Your task to perform on an android device: Set the phone to "Do not disturb". Image 0: 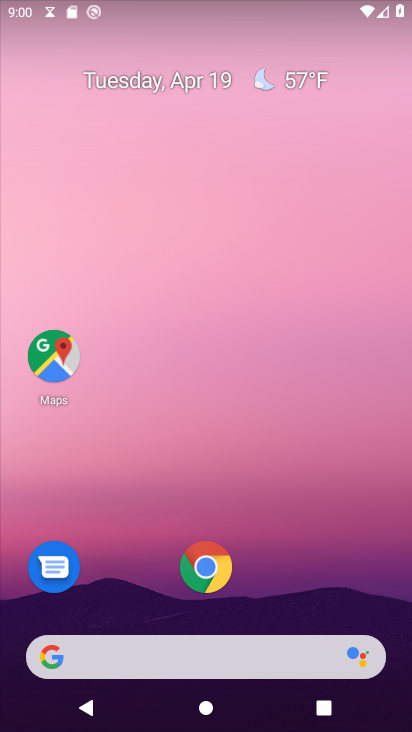
Step 0: drag from (335, 542) to (387, 105)
Your task to perform on an android device: Set the phone to "Do not disturb". Image 1: 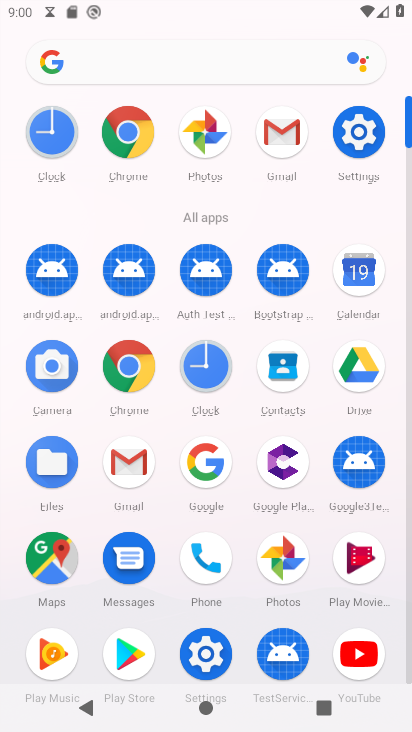
Step 1: click (364, 120)
Your task to perform on an android device: Set the phone to "Do not disturb". Image 2: 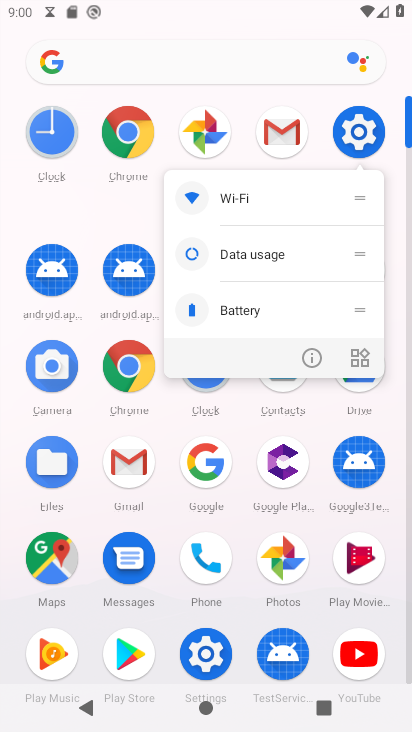
Step 2: click (361, 131)
Your task to perform on an android device: Set the phone to "Do not disturb". Image 3: 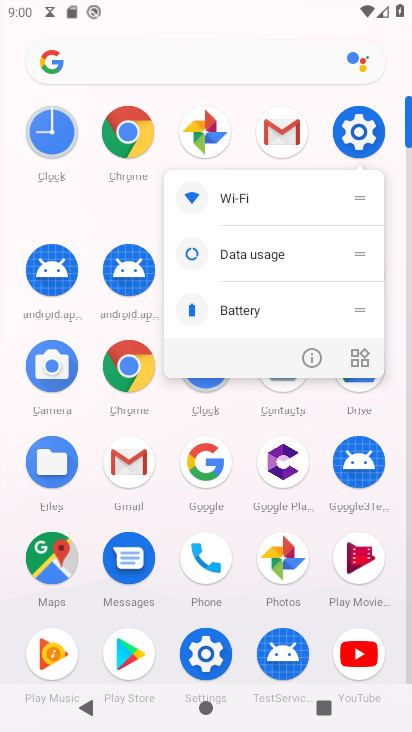
Step 3: click (361, 130)
Your task to perform on an android device: Set the phone to "Do not disturb". Image 4: 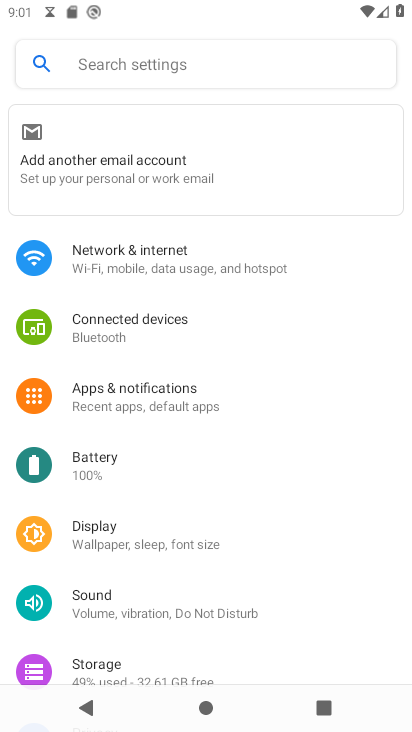
Step 4: drag from (74, 614) to (81, 323)
Your task to perform on an android device: Set the phone to "Do not disturb". Image 5: 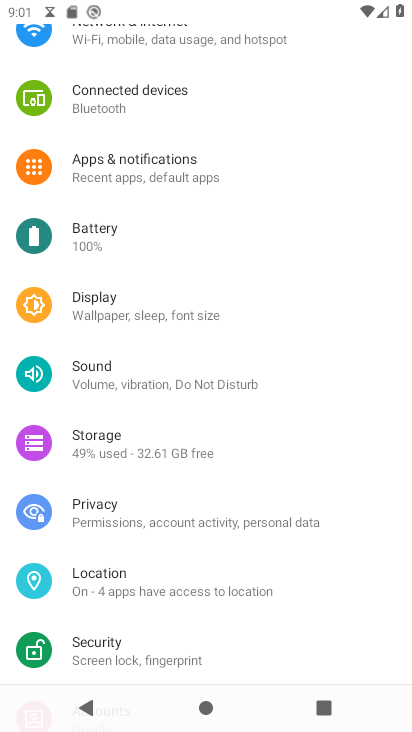
Step 5: click (138, 384)
Your task to perform on an android device: Set the phone to "Do not disturb". Image 6: 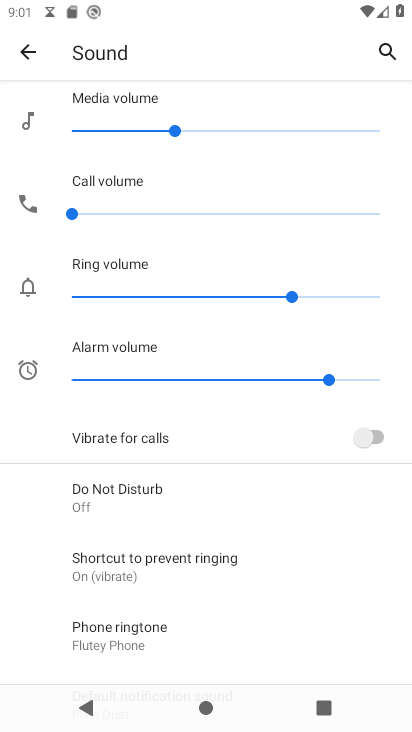
Step 6: drag from (126, 601) to (183, 278)
Your task to perform on an android device: Set the phone to "Do not disturb". Image 7: 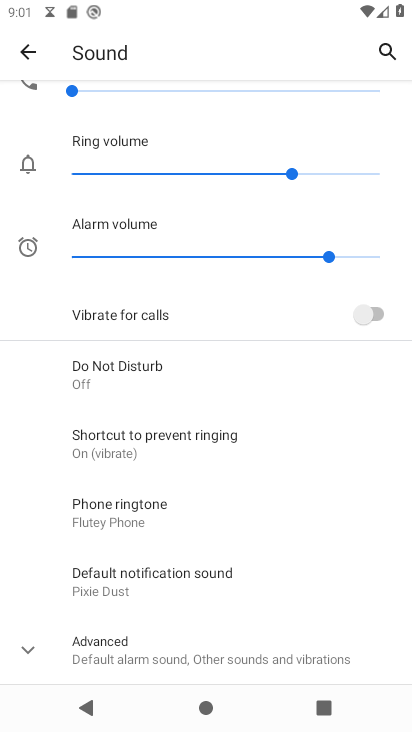
Step 7: click (104, 367)
Your task to perform on an android device: Set the phone to "Do not disturb". Image 8: 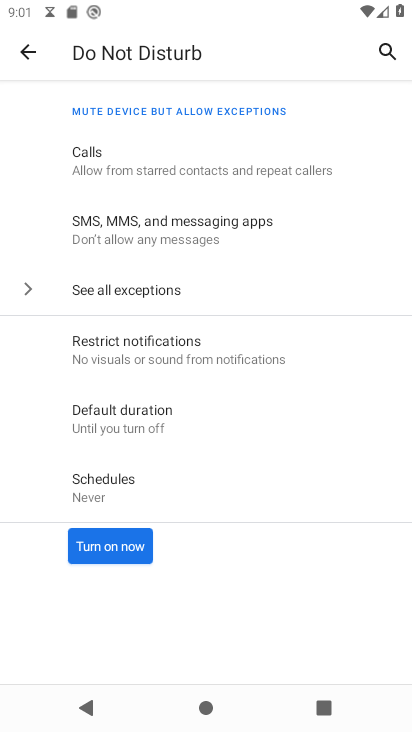
Step 8: click (99, 554)
Your task to perform on an android device: Set the phone to "Do not disturb". Image 9: 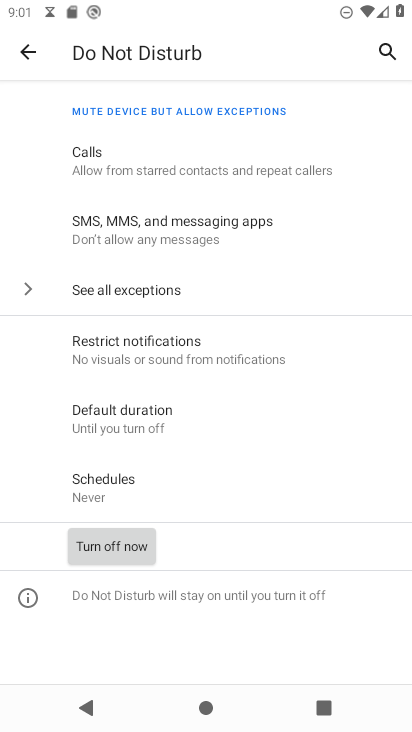
Step 9: task complete